Your task to perform on an android device: What's the weather going to be this weekend? Image 0: 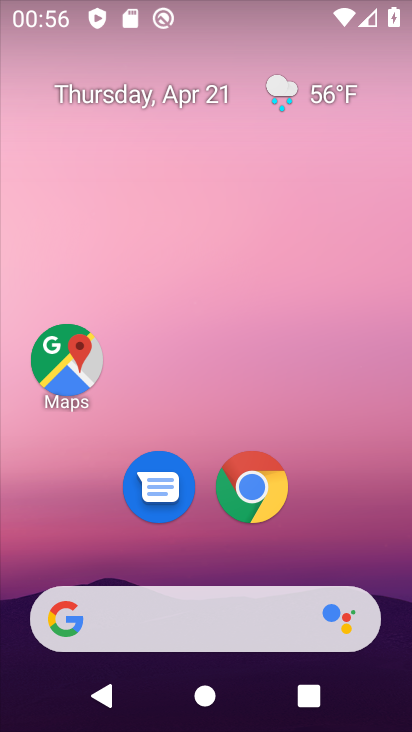
Step 0: drag from (317, 525) to (253, 99)
Your task to perform on an android device: What's the weather going to be this weekend? Image 1: 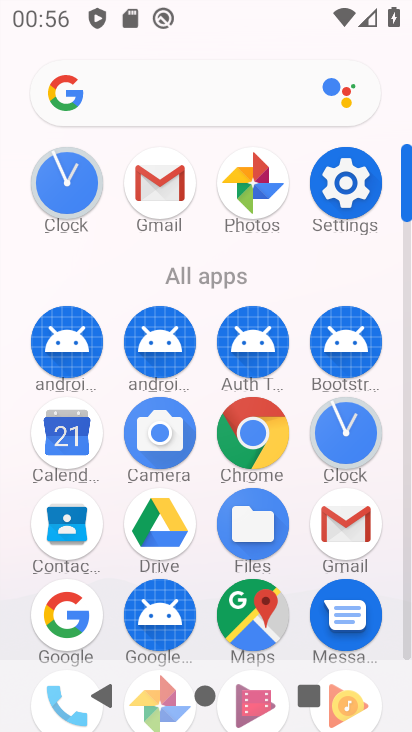
Step 1: click (163, 103)
Your task to perform on an android device: What's the weather going to be this weekend? Image 2: 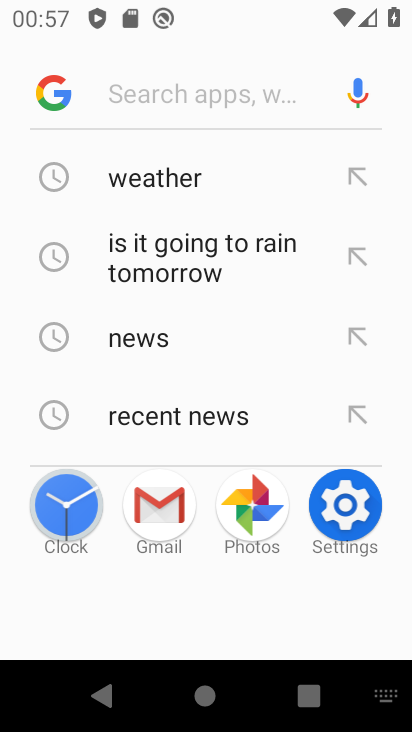
Step 2: type "what's the weather going to be this weekend"
Your task to perform on an android device: What's the weather going to be this weekend? Image 3: 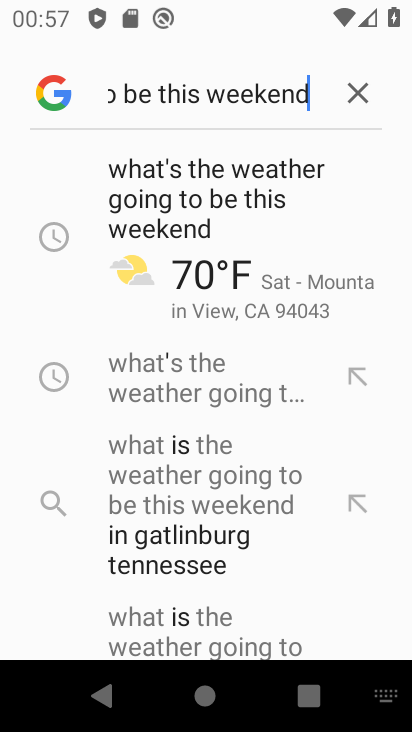
Step 3: click (188, 190)
Your task to perform on an android device: What's the weather going to be this weekend? Image 4: 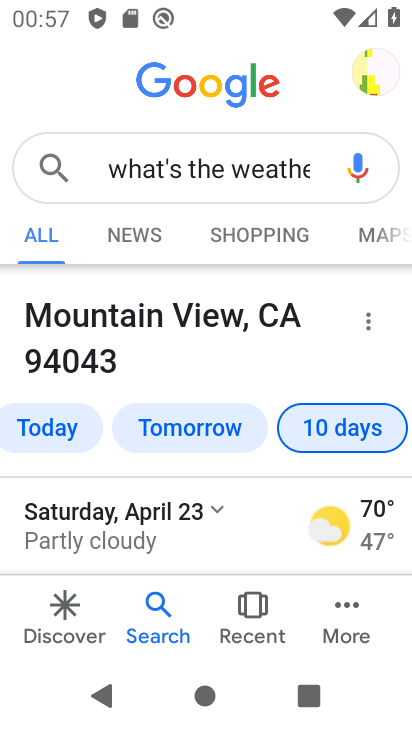
Step 4: task complete